Your task to perform on an android device: What is the recent news? Image 0: 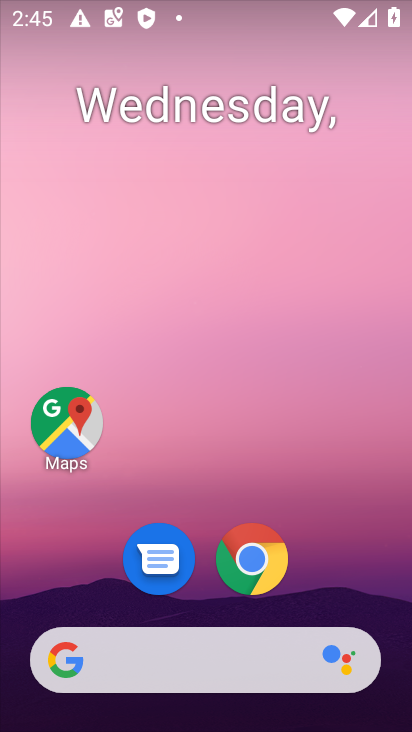
Step 0: drag from (215, 580) to (244, 85)
Your task to perform on an android device: What is the recent news? Image 1: 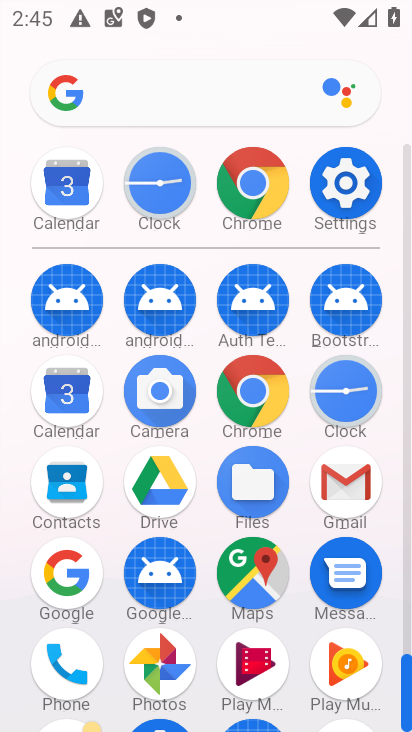
Step 1: task complete